Your task to perform on an android device: turn on wifi Image 0: 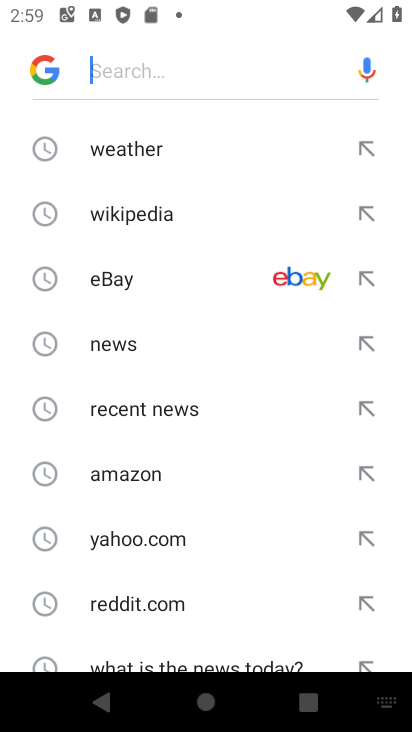
Step 0: press back button
Your task to perform on an android device: turn on wifi Image 1: 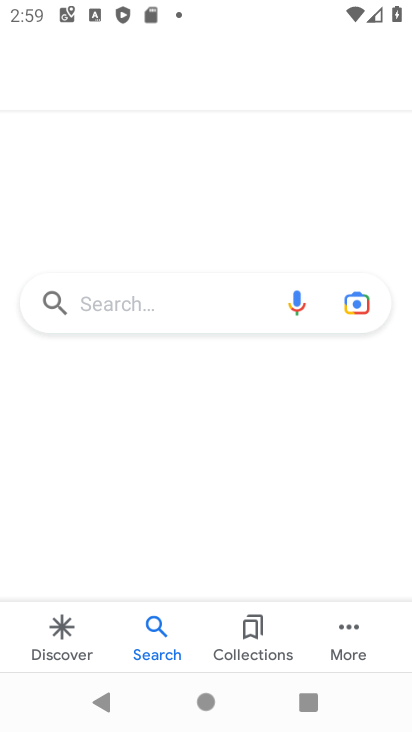
Step 1: press home button
Your task to perform on an android device: turn on wifi Image 2: 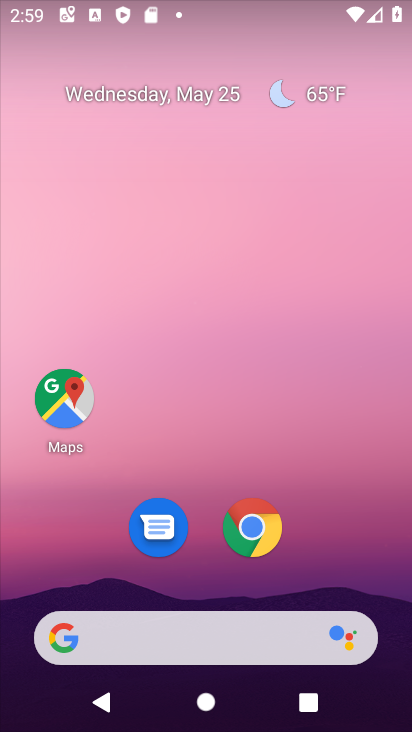
Step 2: drag from (237, 589) to (348, 118)
Your task to perform on an android device: turn on wifi Image 3: 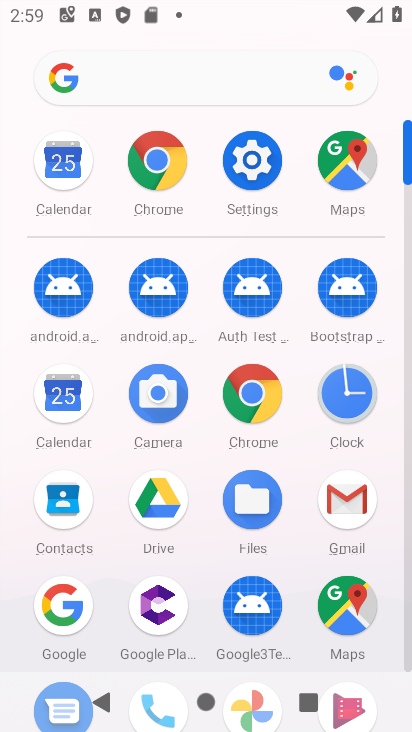
Step 3: click (258, 165)
Your task to perform on an android device: turn on wifi Image 4: 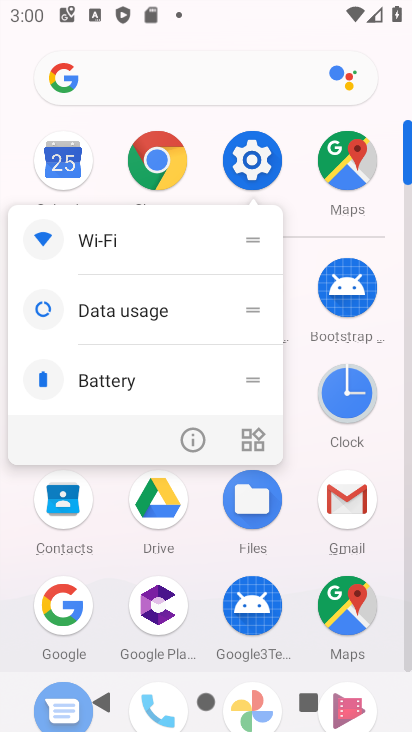
Step 4: click (160, 261)
Your task to perform on an android device: turn on wifi Image 5: 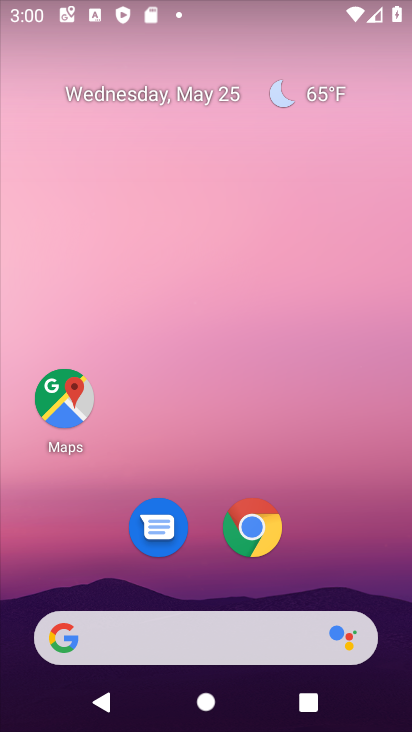
Step 5: drag from (297, 591) to (340, 0)
Your task to perform on an android device: turn on wifi Image 6: 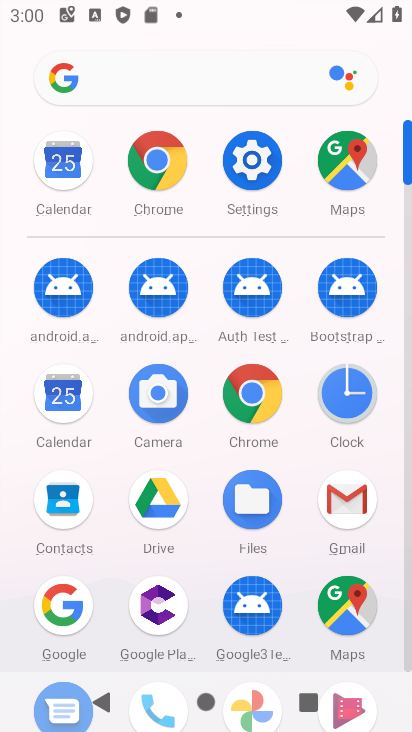
Step 6: click (260, 143)
Your task to perform on an android device: turn on wifi Image 7: 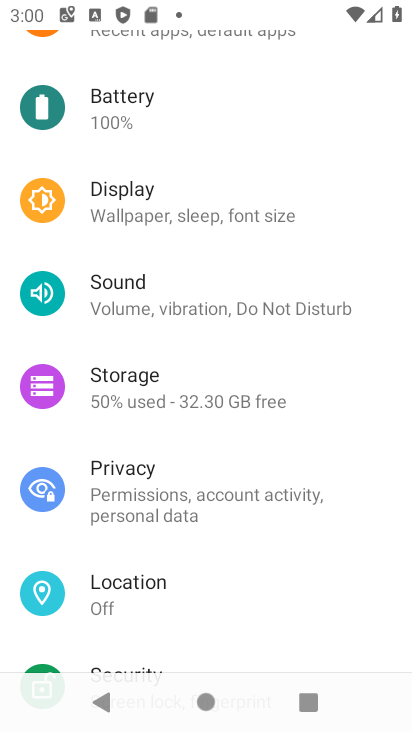
Step 7: drag from (252, 205) to (121, 703)
Your task to perform on an android device: turn on wifi Image 8: 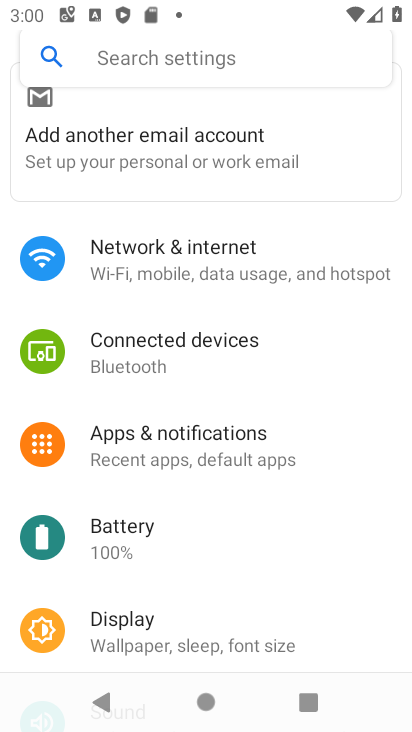
Step 8: click (202, 283)
Your task to perform on an android device: turn on wifi Image 9: 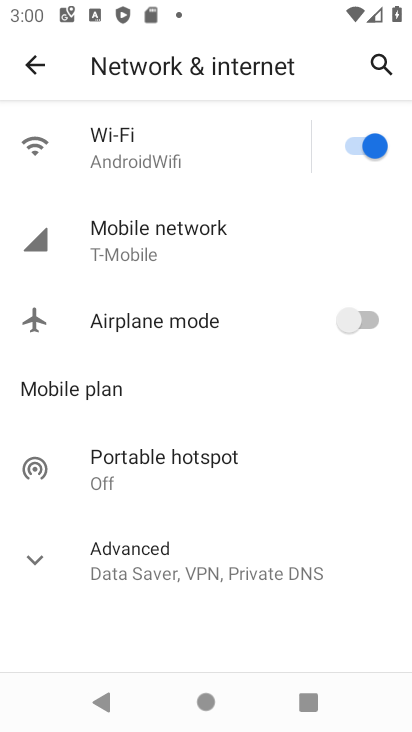
Step 9: task complete